Your task to perform on an android device: Open Wikipedia Image 0: 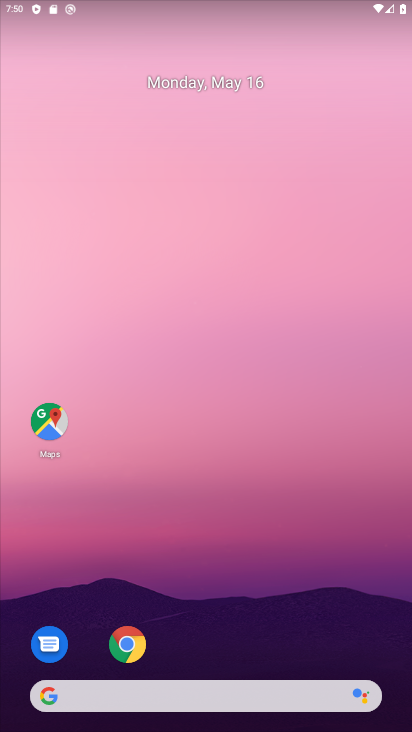
Step 0: click (142, 641)
Your task to perform on an android device: Open Wikipedia Image 1: 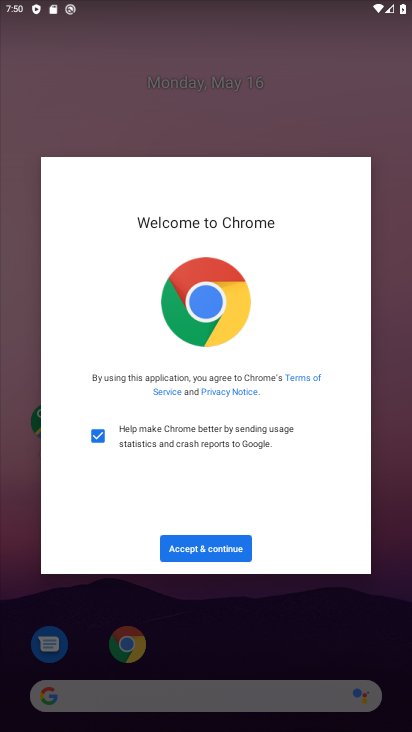
Step 1: click (223, 541)
Your task to perform on an android device: Open Wikipedia Image 2: 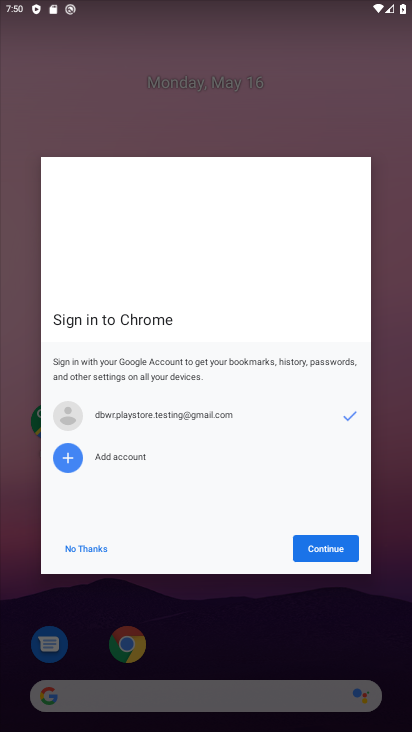
Step 2: click (315, 545)
Your task to perform on an android device: Open Wikipedia Image 3: 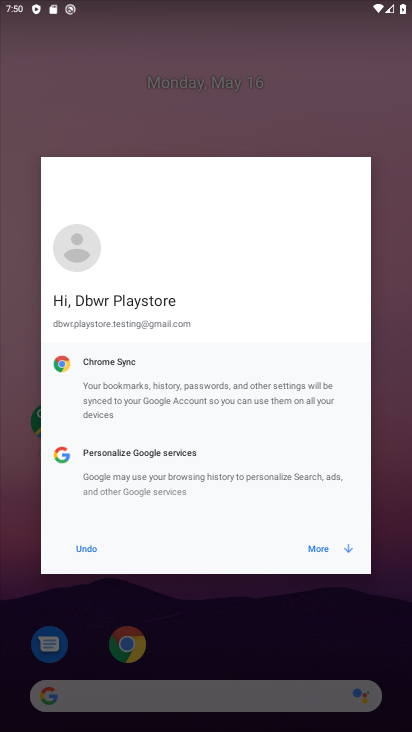
Step 3: click (322, 540)
Your task to perform on an android device: Open Wikipedia Image 4: 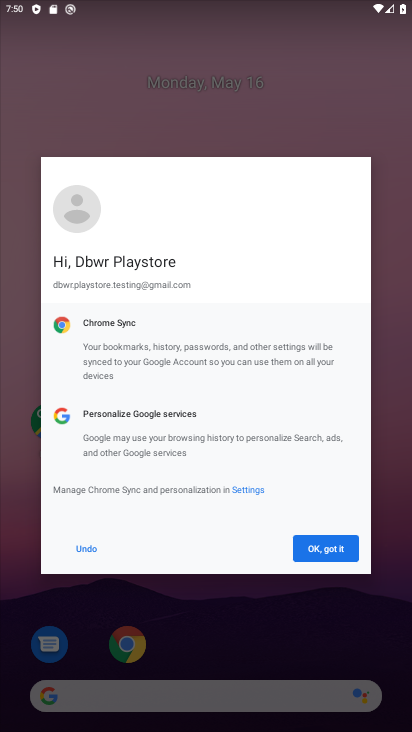
Step 4: click (327, 549)
Your task to perform on an android device: Open Wikipedia Image 5: 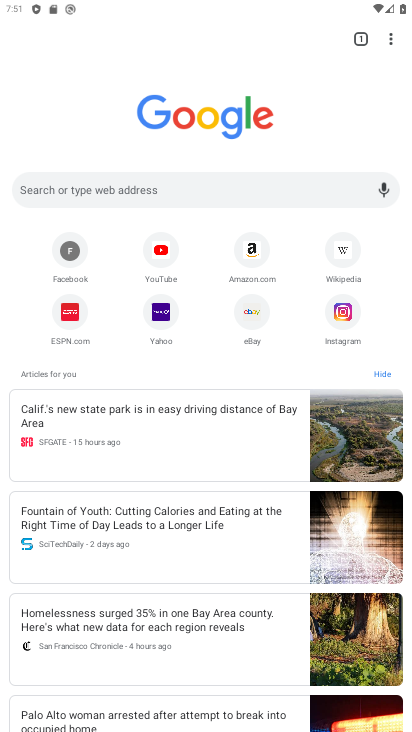
Step 5: click (347, 263)
Your task to perform on an android device: Open Wikipedia Image 6: 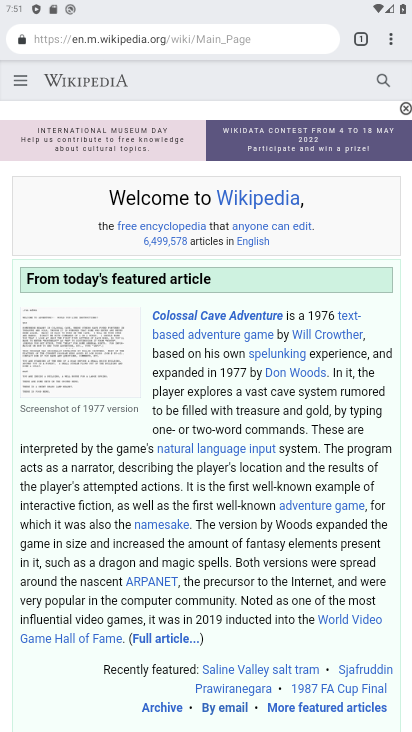
Step 6: task complete